Your task to perform on an android device: Add "acer nitro" to the cart on newegg, then select checkout. Image 0: 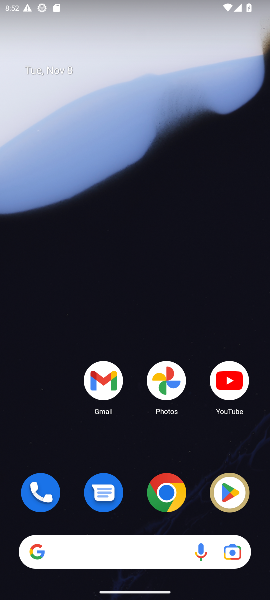
Step 0: click (171, 490)
Your task to perform on an android device: Add "acer nitro" to the cart on newegg, then select checkout. Image 1: 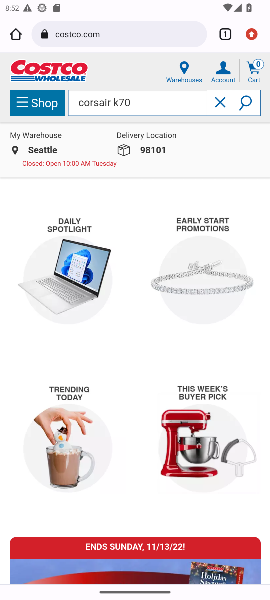
Step 1: click (141, 37)
Your task to perform on an android device: Add "acer nitro" to the cart on newegg, then select checkout. Image 2: 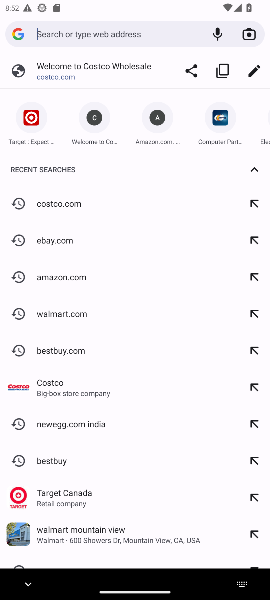
Step 2: type "newegg"
Your task to perform on an android device: Add "acer nitro" to the cart on newegg, then select checkout. Image 3: 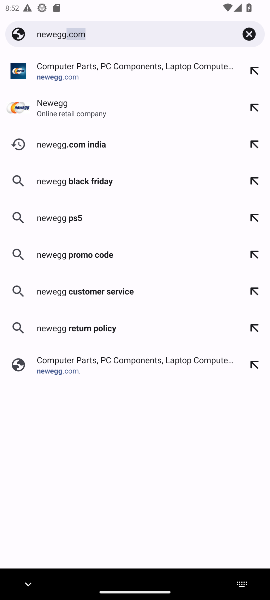
Step 3: click (162, 31)
Your task to perform on an android device: Add "acer nitro" to the cart on newegg, then select checkout. Image 4: 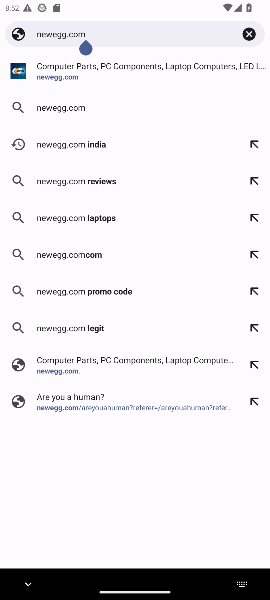
Step 4: click (63, 107)
Your task to perform on an android device: Add "acer nitro" to the cart on newegg, then select checkout. Image 5: 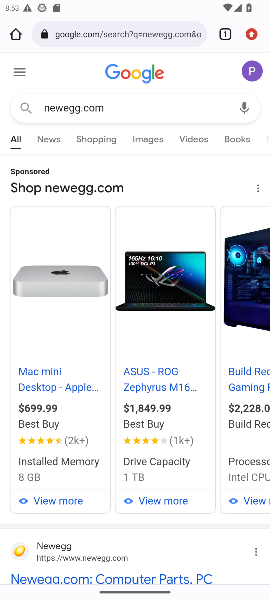
Step 5: drag from (136, 385) to (134, 157)
Your task to perform on an android device: Add "acer nitro" to the cart on newegg, then select checkout. Image 6: 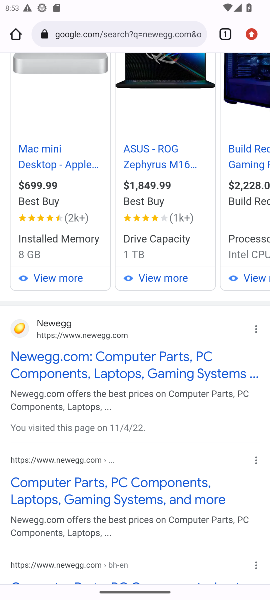
Step 6: click (103, 333)
Your task to perform on an android device: Add "acer nitro" to the cart on newegg, then select checkout. Image 7: 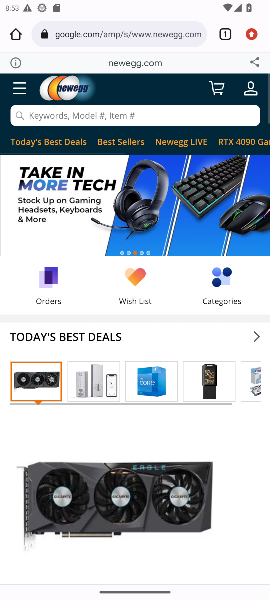
Step 7: click (192, 116)
Your task to perform on an android device: Add "acer nitro" to the cart on newegg, then select checkout. Image 8: 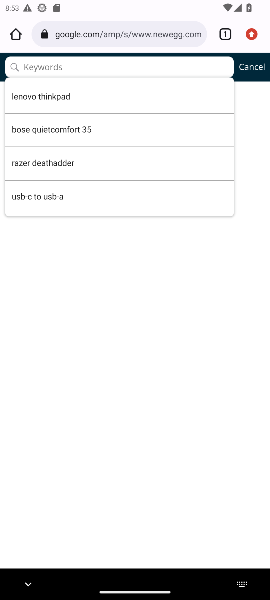
Step 8: type "acer nitro"
Your task to perform on an android device: Add "acer nitro" to the cart on newegg, then select checkout. Image 9: 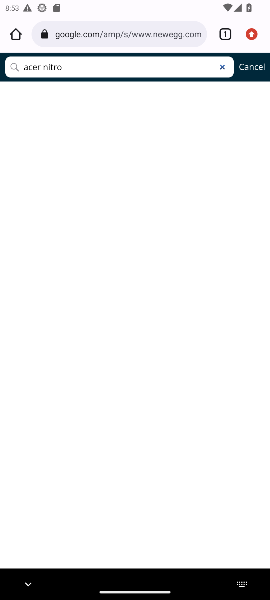
Step 9: click (192, 239)
Your task to perform on an android device: Add "acer nitro" to the cart on newegg, then select checkout. Image 10: 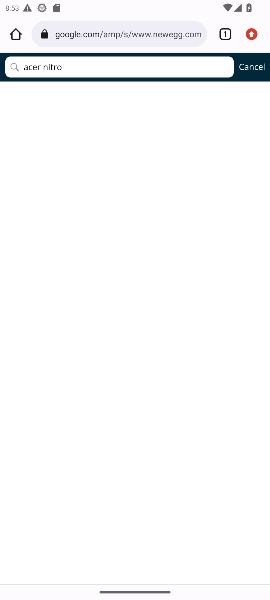
Step 10: task complete